Your task to perform on an android device: Open CNN.com Image 0: 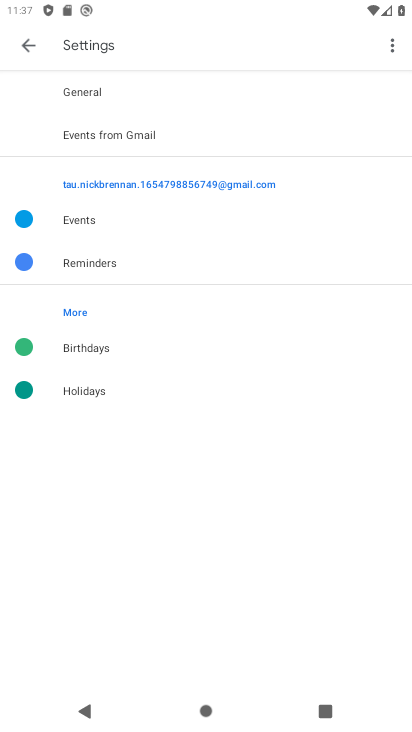
Step 0: press home button
Your task to perform on an android device: Open CNN.com Image 1: 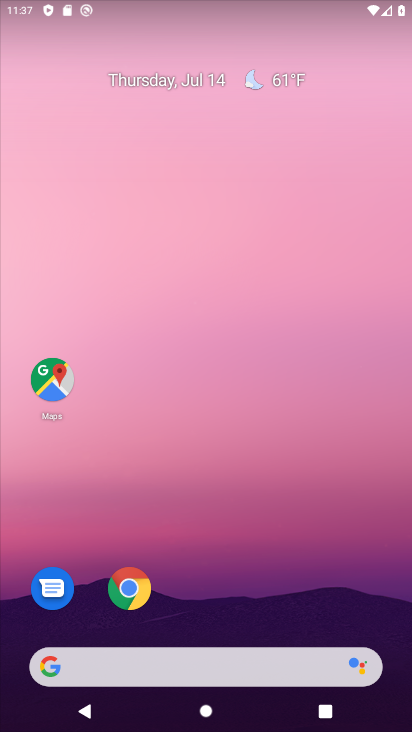
Step 1: click (143, 605)
Your task to perform on an android device: Open CNN.com Image 2: 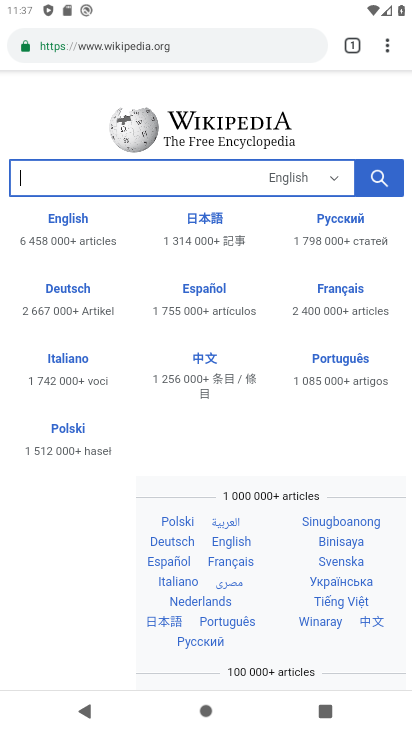
Step 2: click (162, 40)
Your task to perform on an android device: Open CNN.com Image 3: 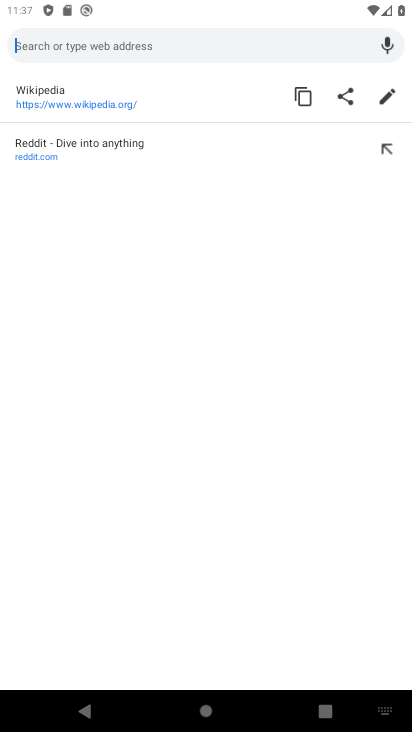
Step 3: type "CNN.com"
Your task to perform on an android device: Open CNN.com Image 4: 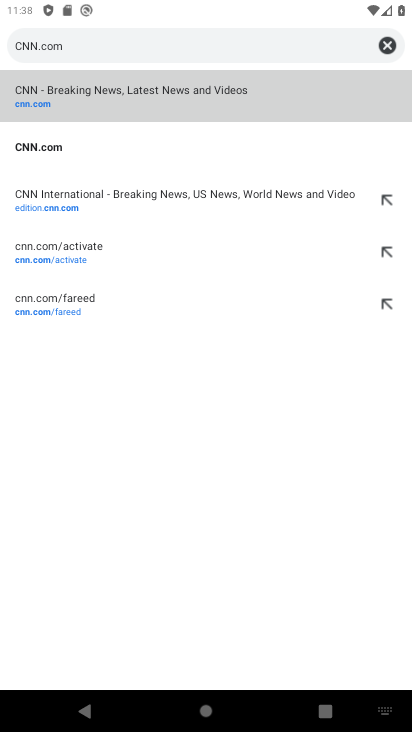
Step 4: click (149, 91)
Your task to perform on an android device: Open CNN.com Image 5: 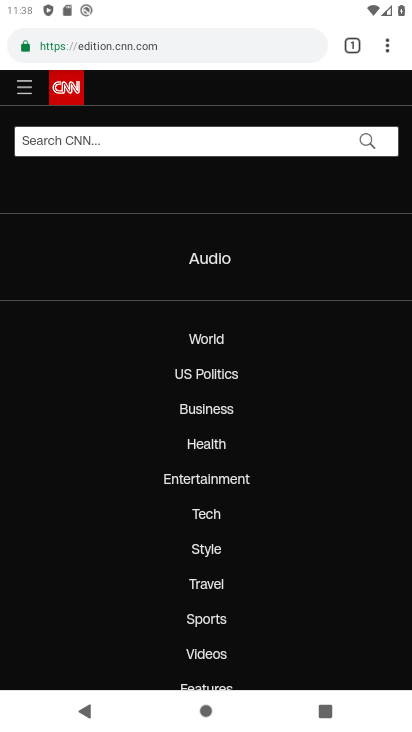
Step 5: task complete